Your task to perform on an android device: install app "Pinterest" Image 0: 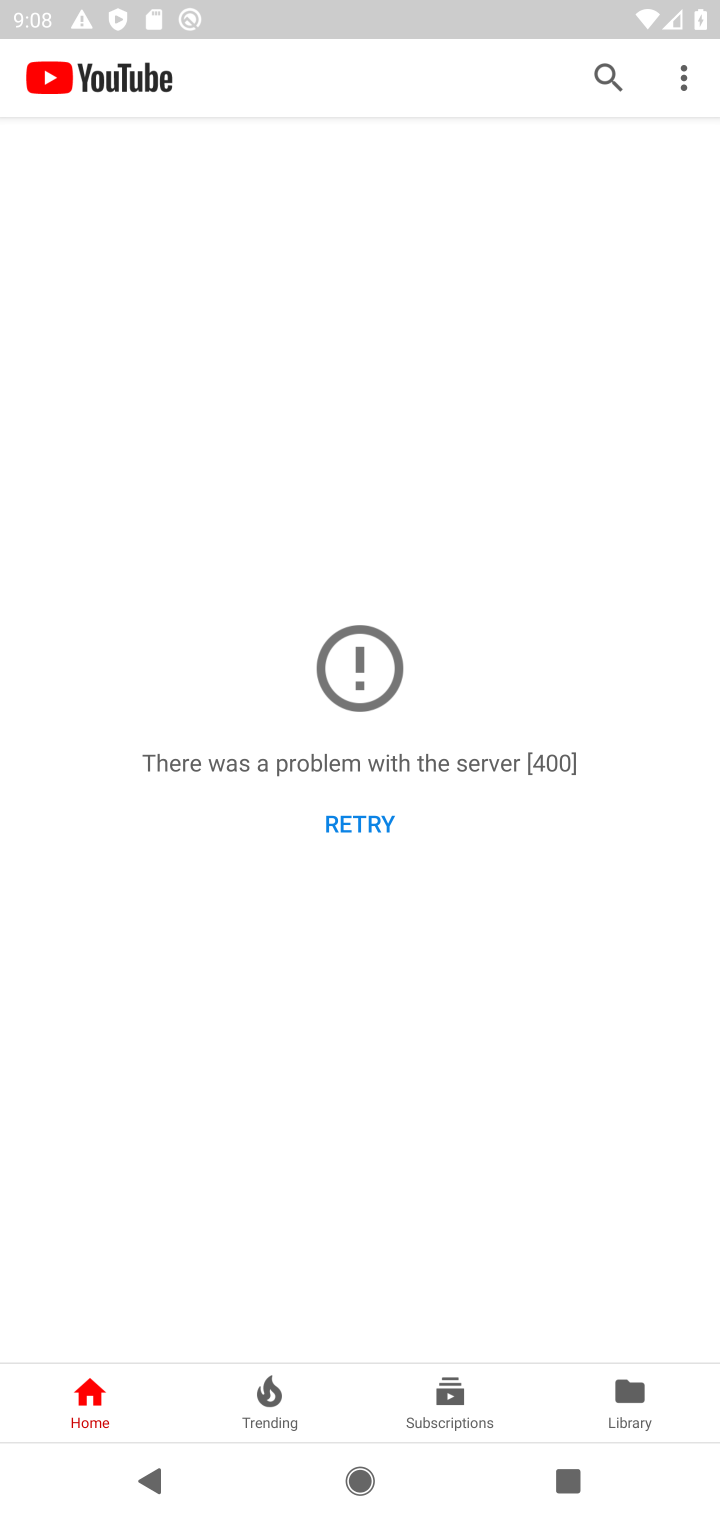
Step 0: press home button
Your task to perform on an android device: install app "Pinterest" Image 1: 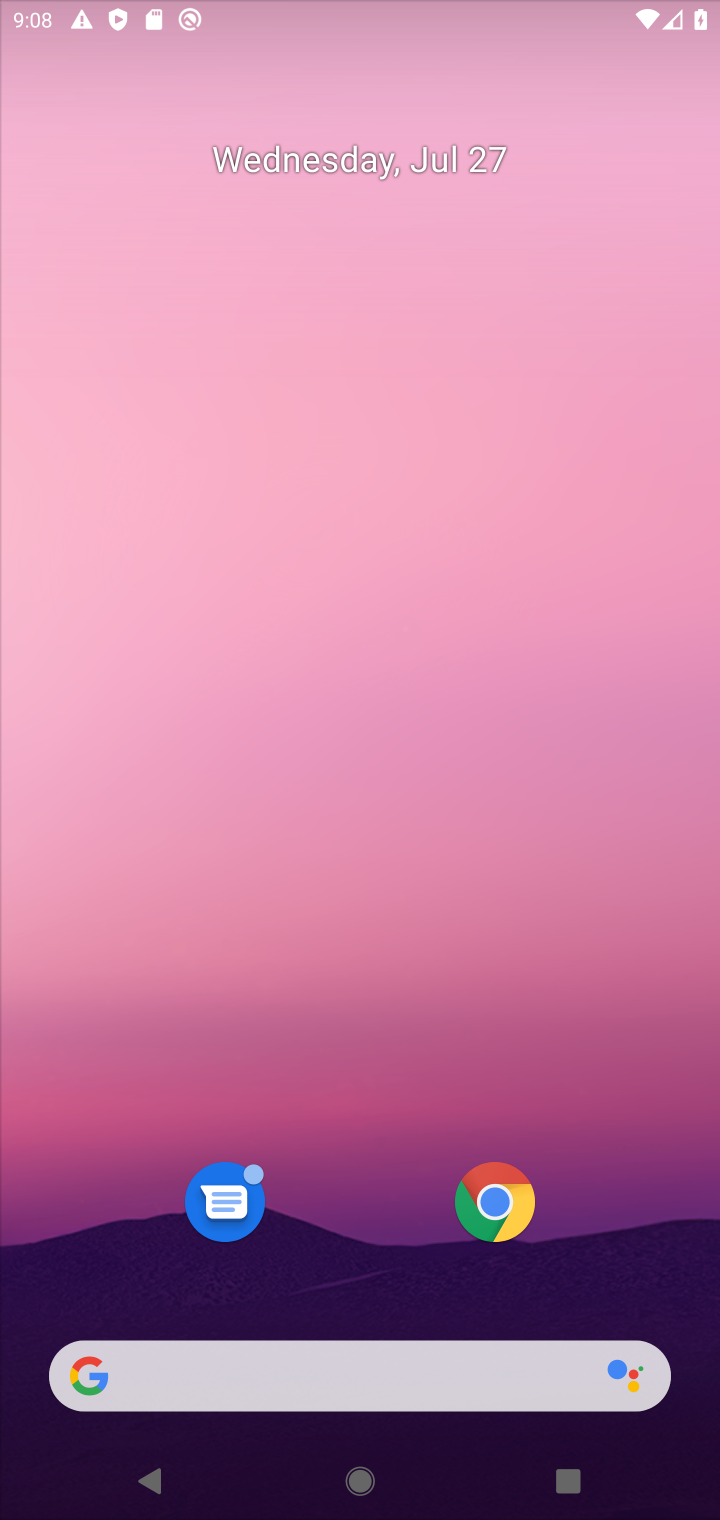
Step 1: drag from (377, 1375) to (273, 253)
Your task to perform on an android device: install app "Pinterest" Image 2: 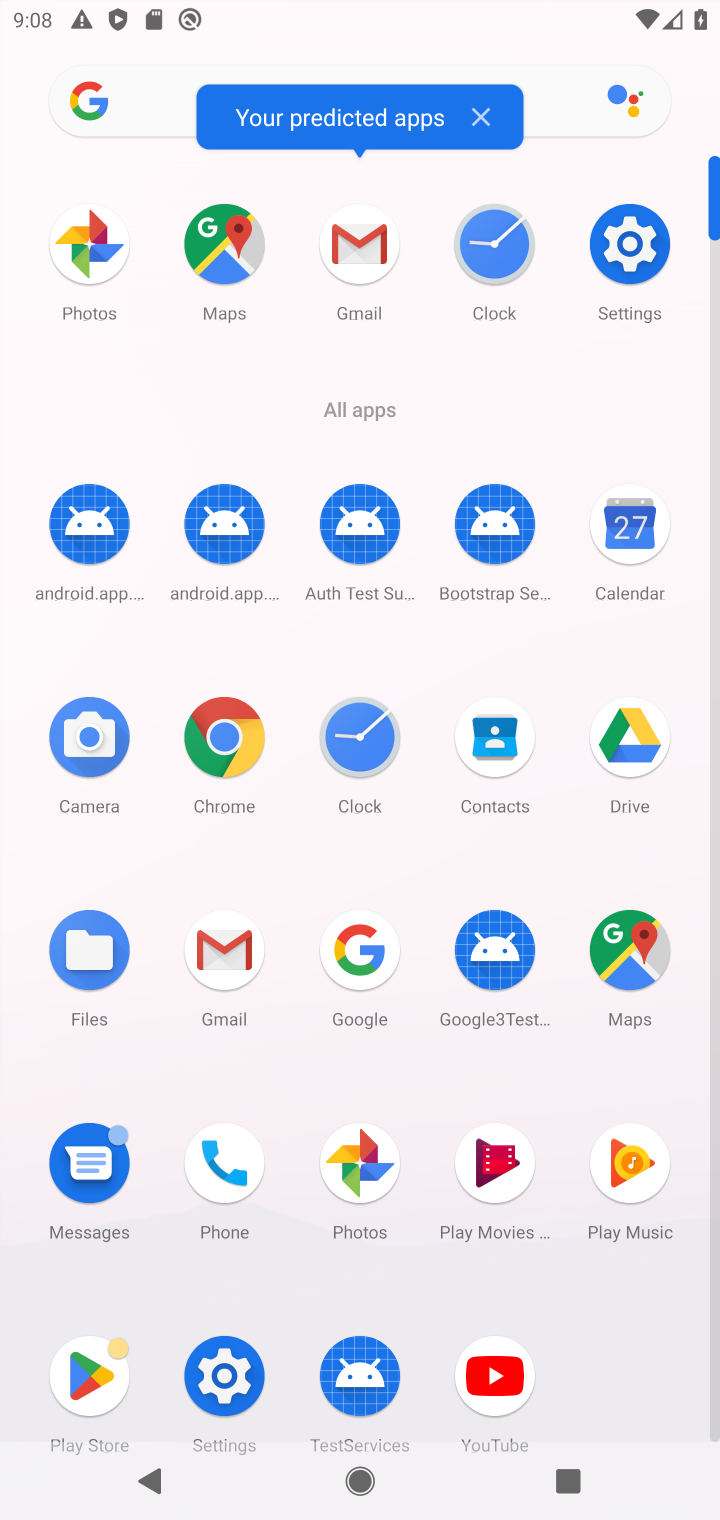
Step 2: click (85, 1363)
Your task to perform on an android device: install app "Pinterest" Image 3: 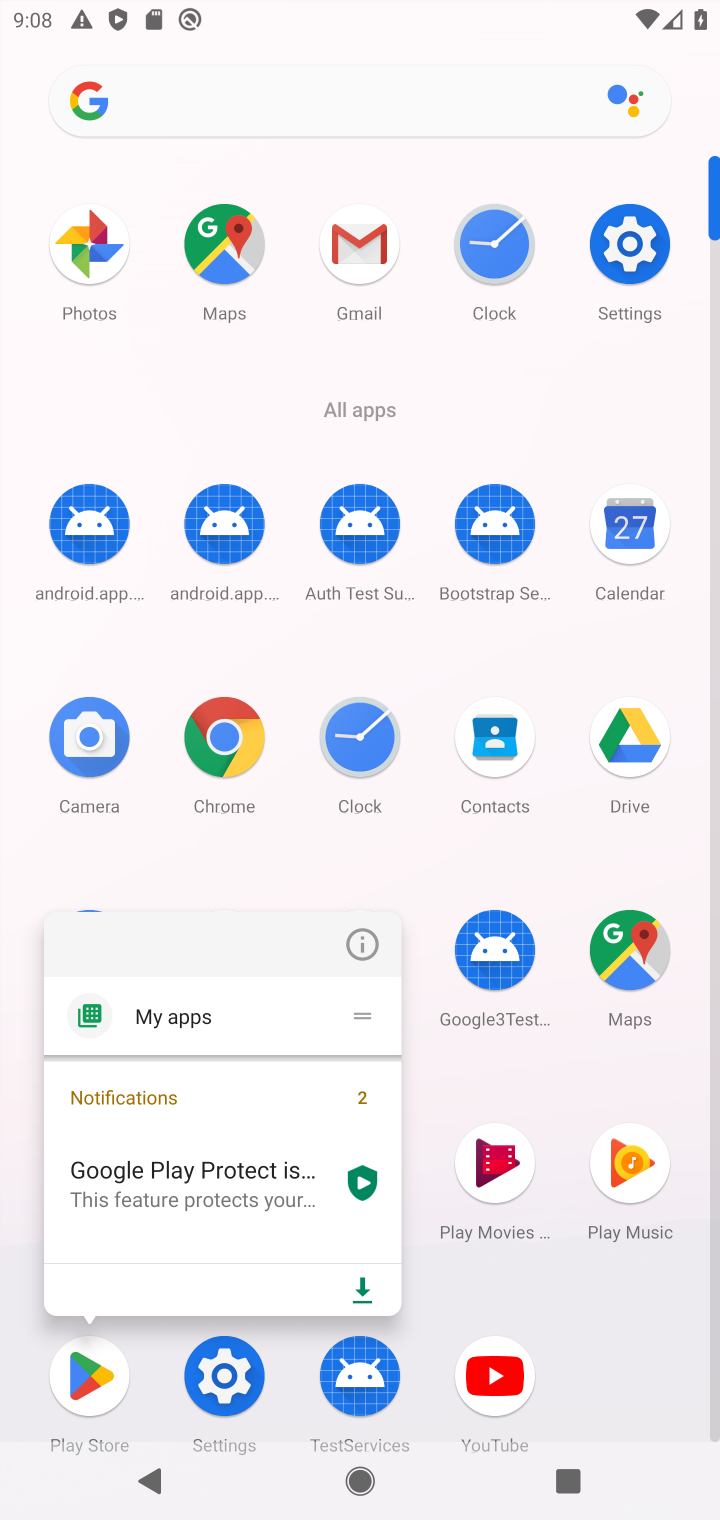
Step 3: click (102, 1362)
Your task to perform on an android device: install app "Pinterest" Image 4: 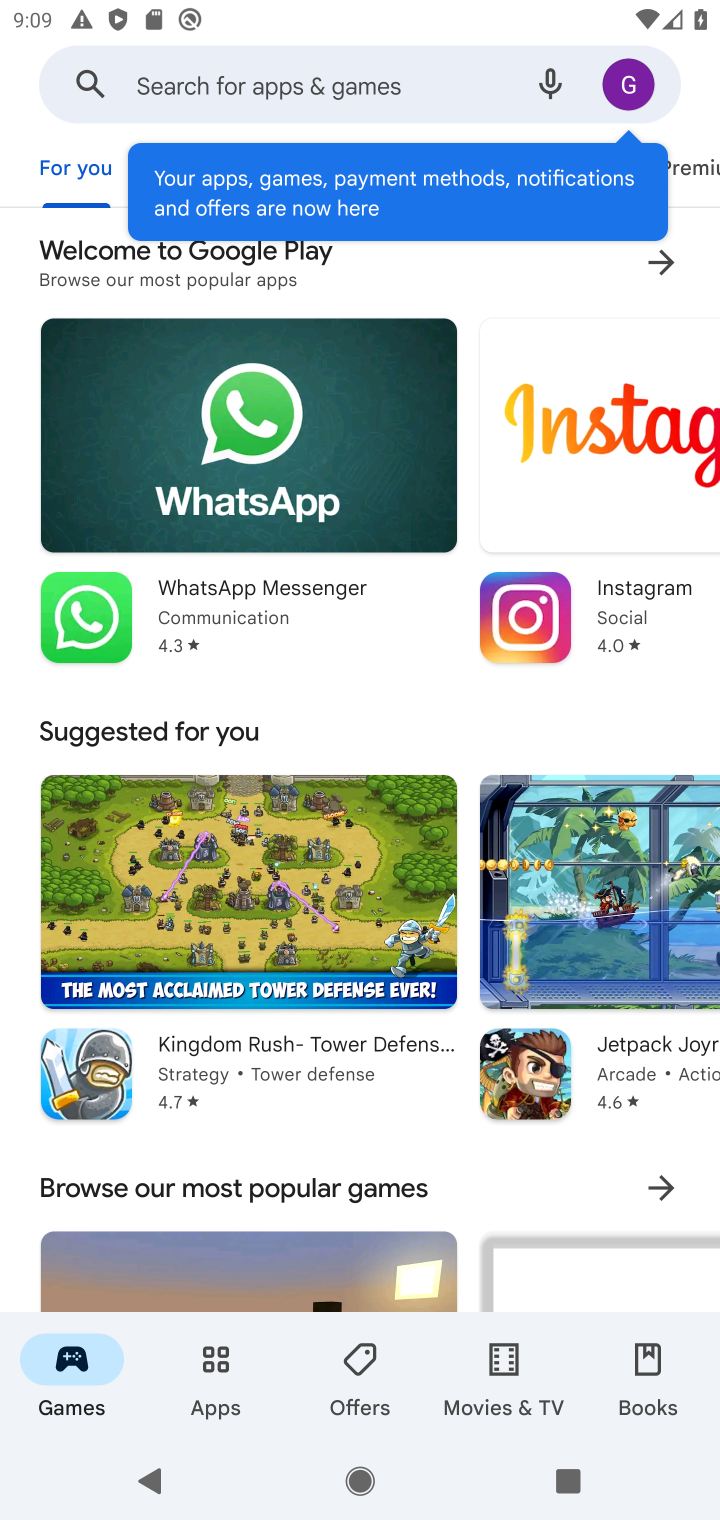
Step 4: click (302, 94)
Your task to perform on an android device: install app "Pinterest" Image 5: 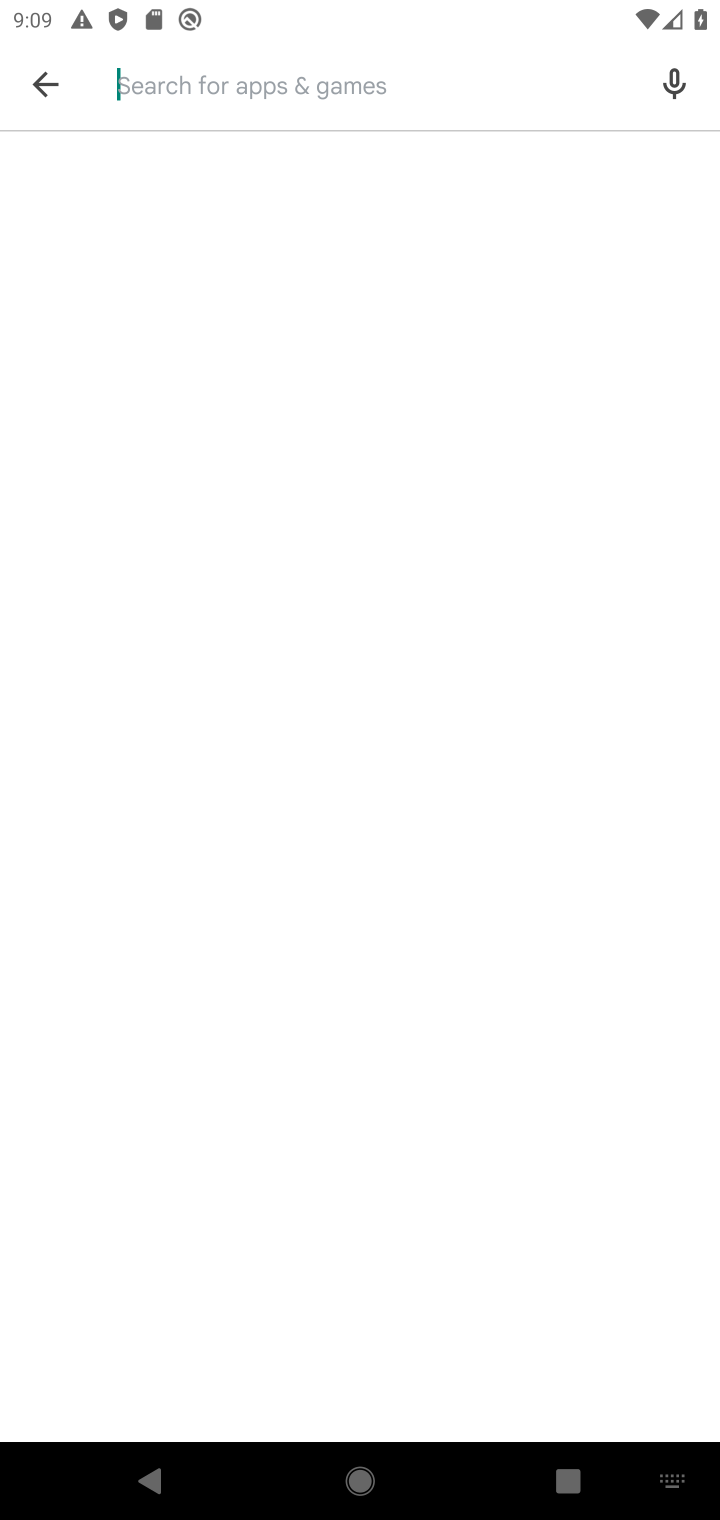
Step 5: type "Pinterest"
Your task to perform on an android device: install app "Pinterest" Image 6: 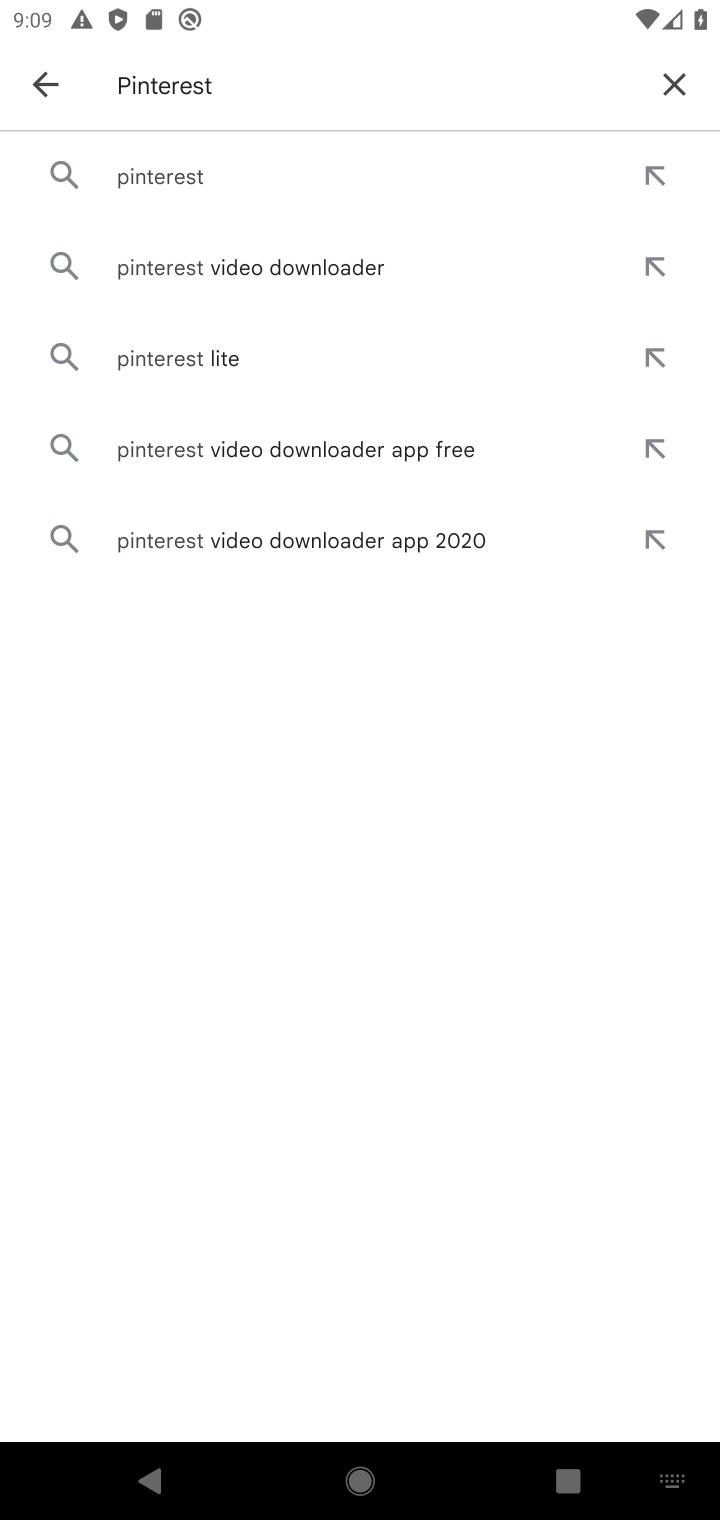
Step 6: click (134, 202)
Your task to perform on an android device: install app "Pinterest" Image 7: 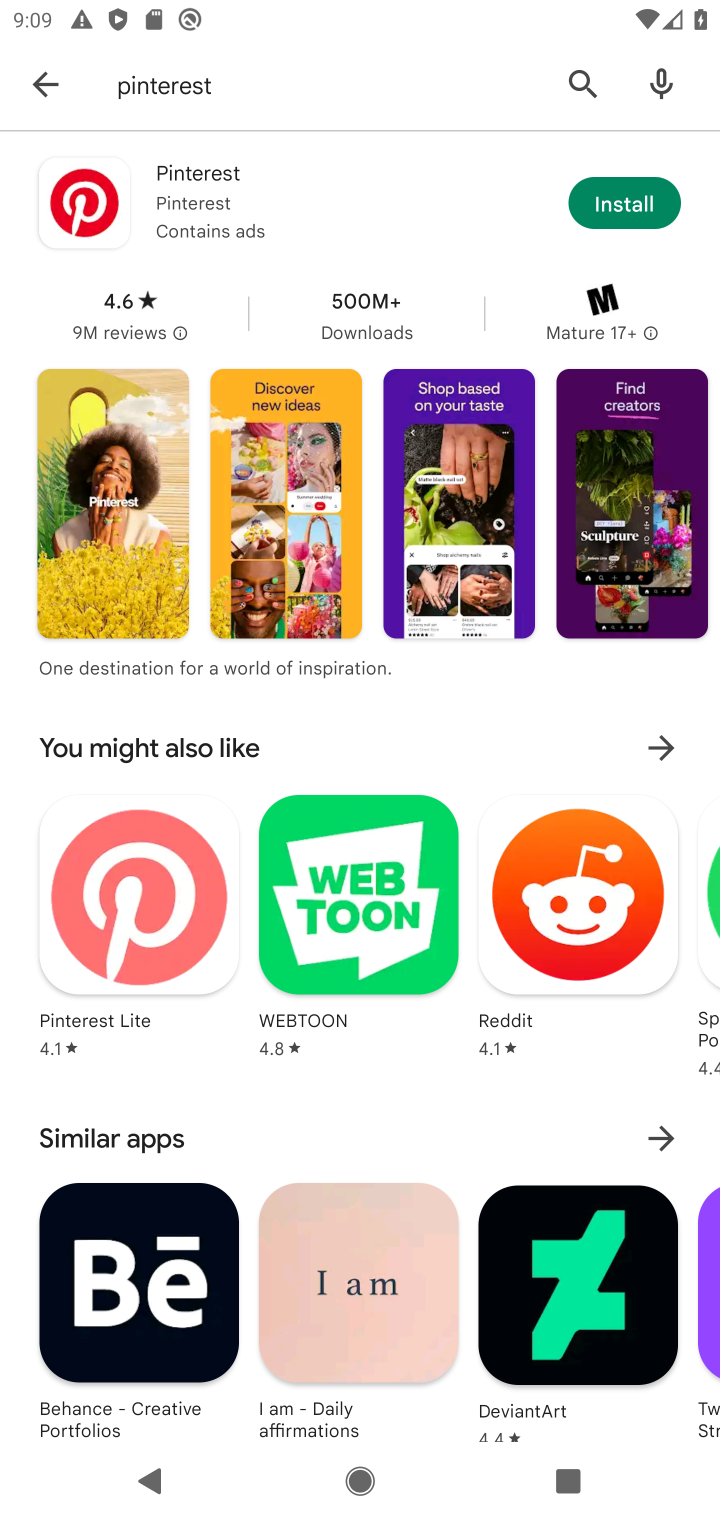
Step 7: click (637, 209)
Your task to perform on an android device: install app "Pinterest" Image 8: 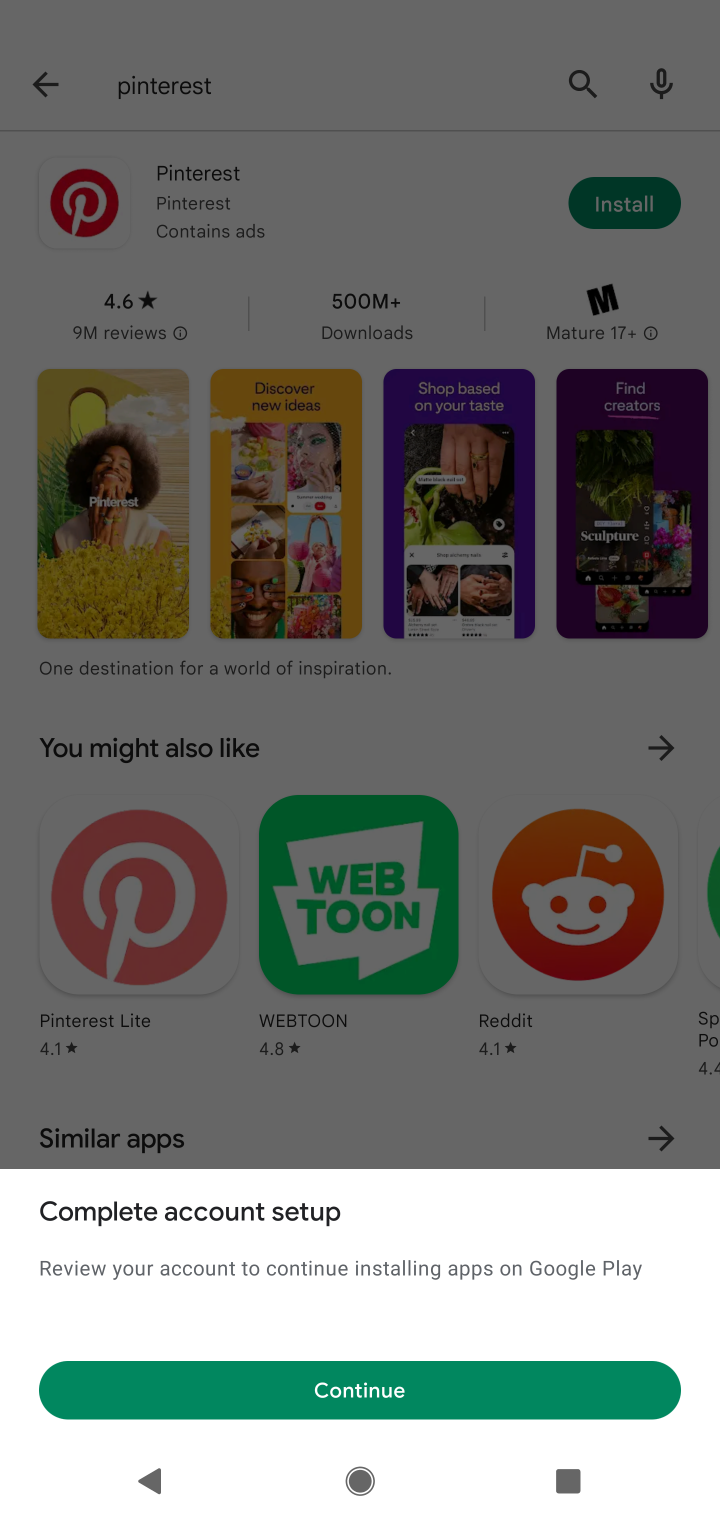
Step 8: click (346, 1387)
Your task to perform on an android device: install app "Pinterest" Image 9: 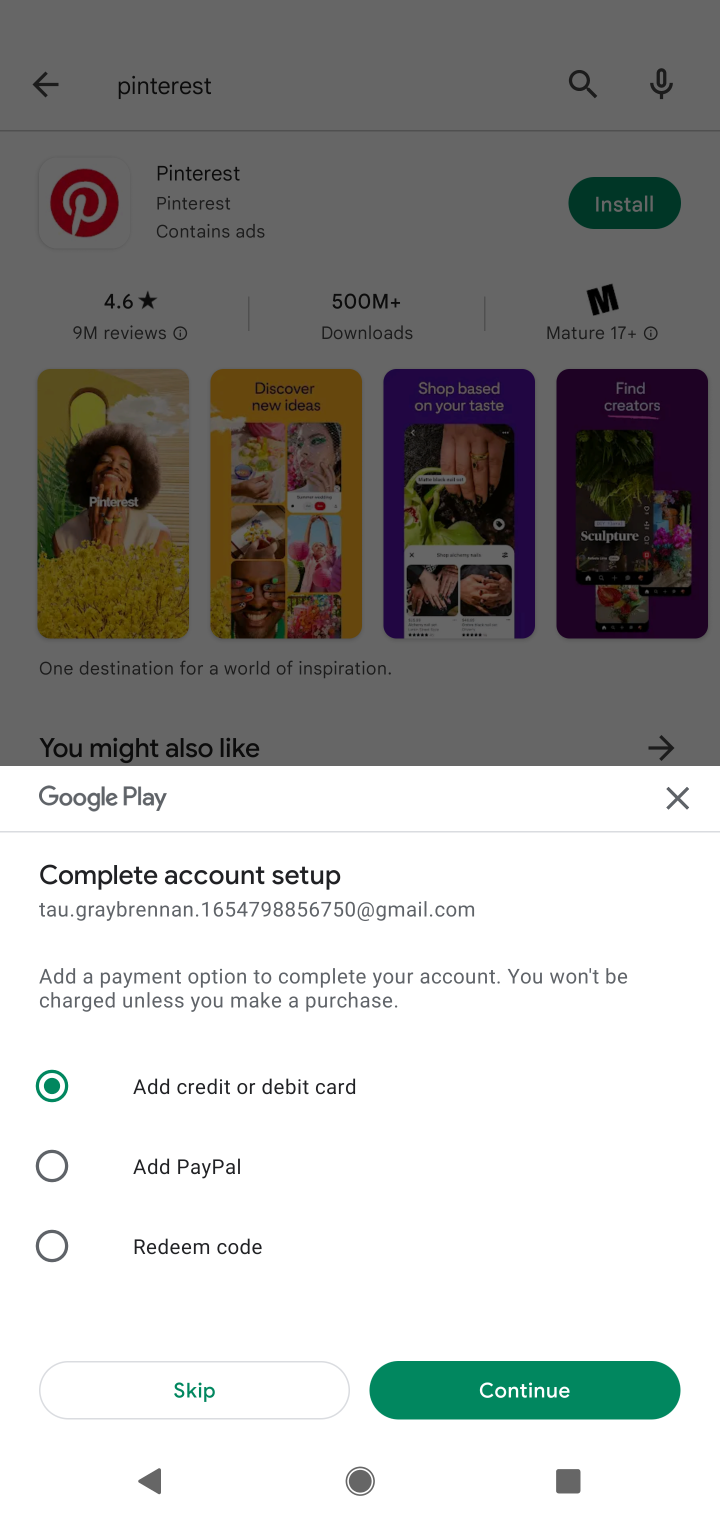
Step 9: click (169, 1378)
Your task to perform on an android device: install app "Pinterest" Image 10: 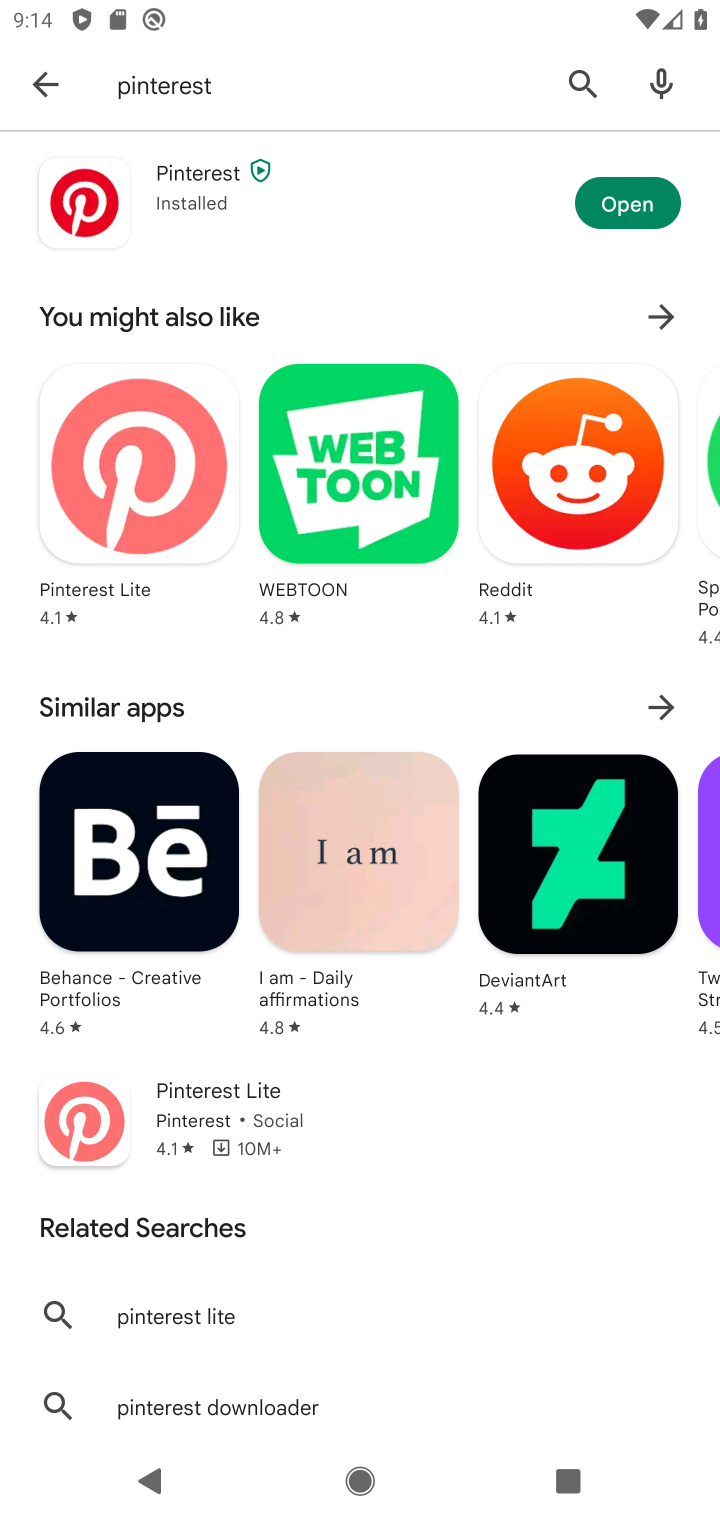
Step 10: task complete